Your task to perform on an android device: Search for a new desk on Ikea Image 0: 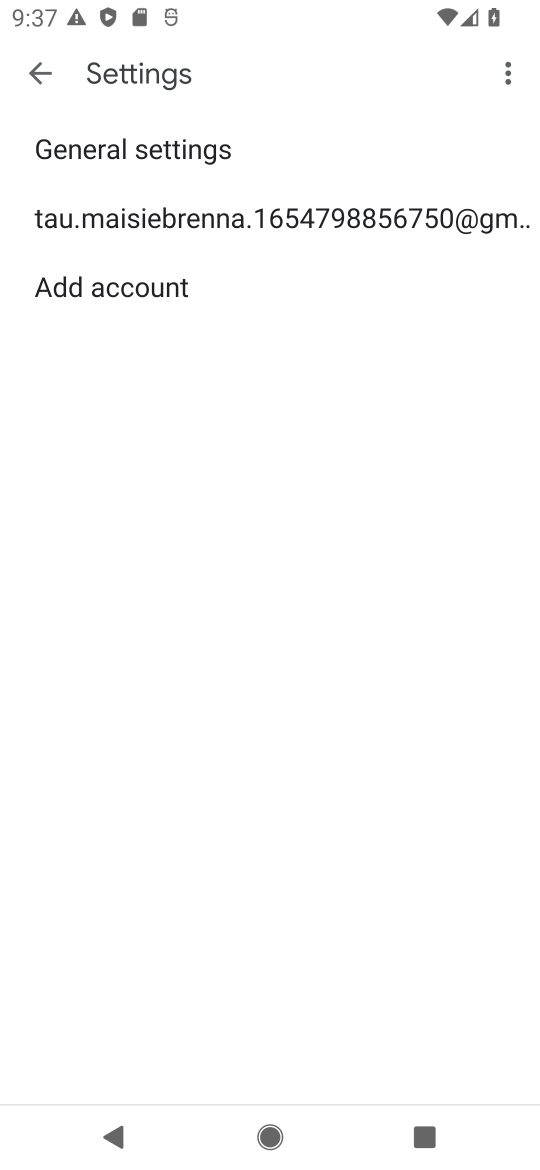
Step 0: press home button
Your task to perform on an android device: Search for a new desk on Ikea Image 1: 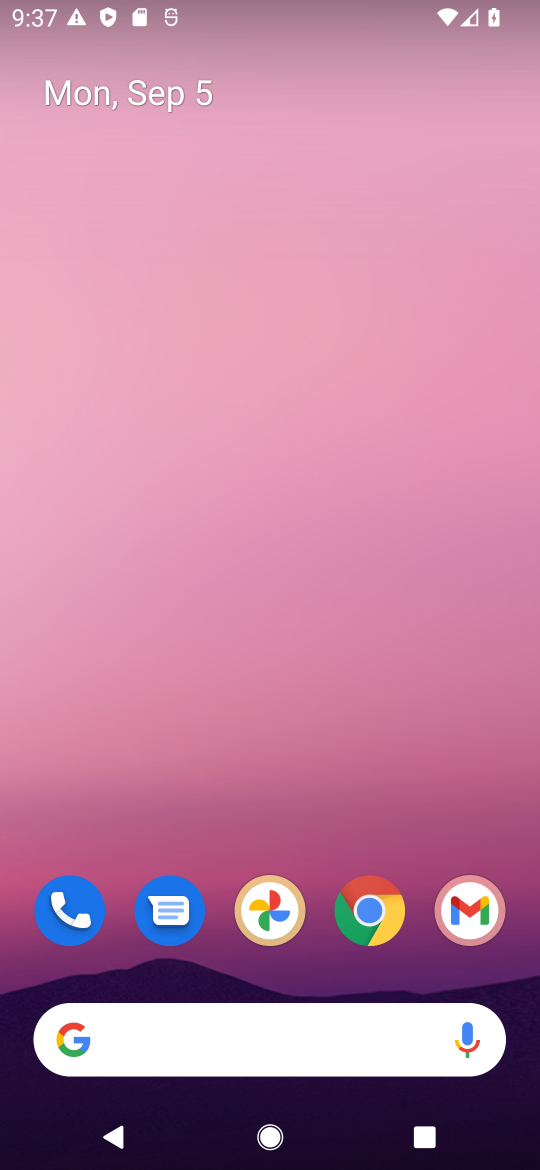
Step 1: click (363, 913)
Your task to perform on an android device: Search for a new desk on Ikea Image 2: 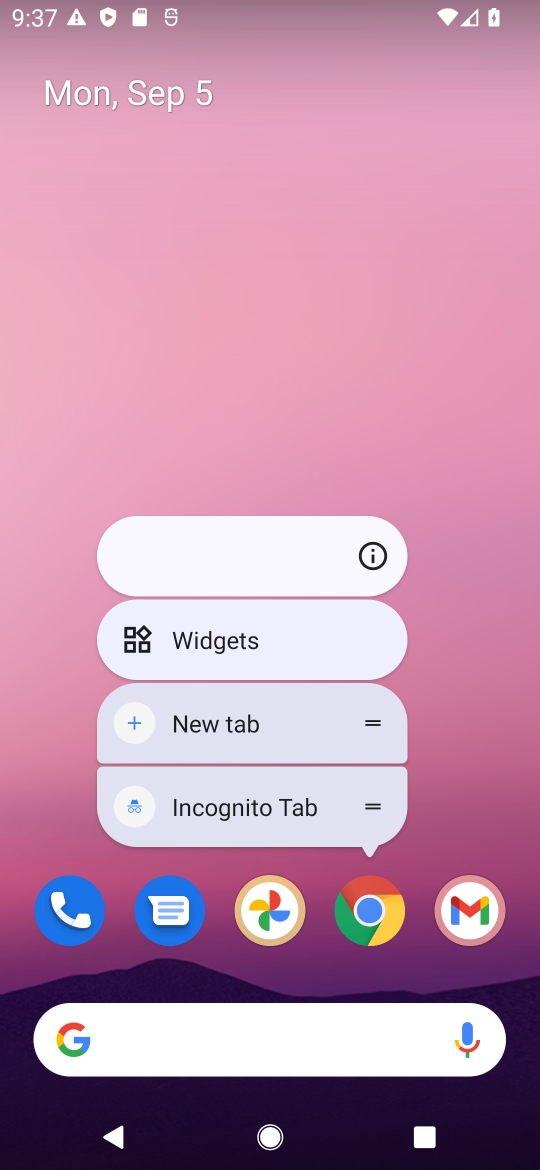
Step 2: click (386, 931)
Your task to perform on an android device: Search for a new desk on Ikea Image 3: 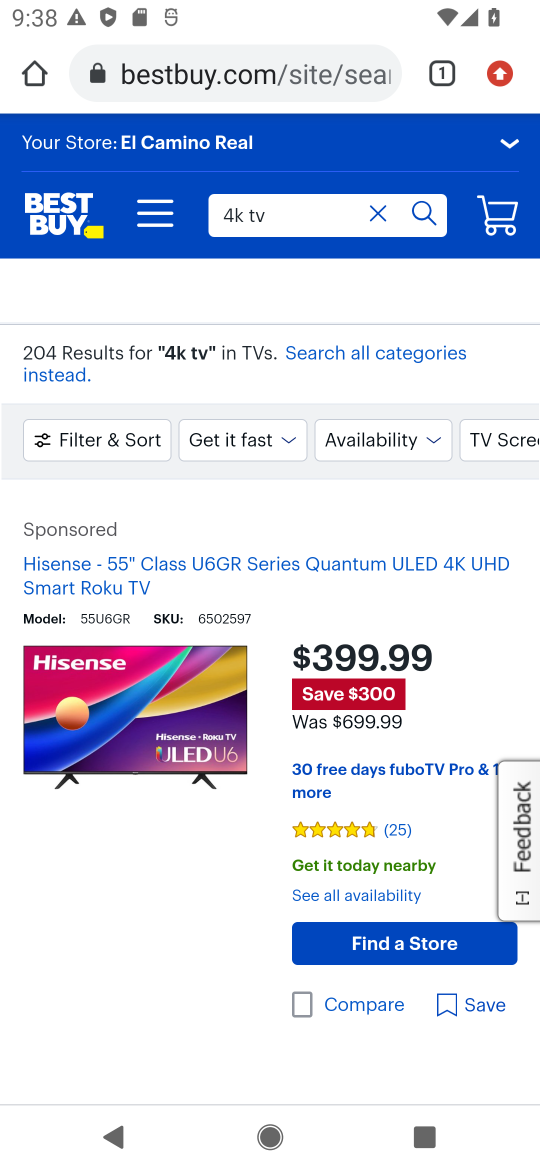
Step 3: click (337, 88)
Your task to perform on an android device: Search for a new desk on Ikea Image 4: 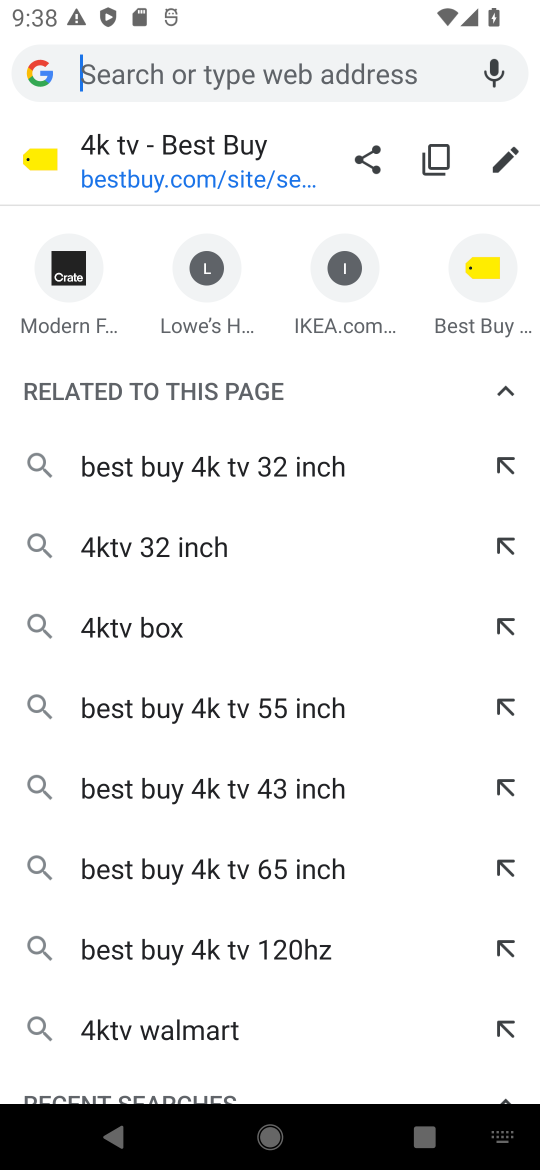
Step 4: type "ikea"
Your task to perform on an android device: Search for a new desk on Ikea Image 5: 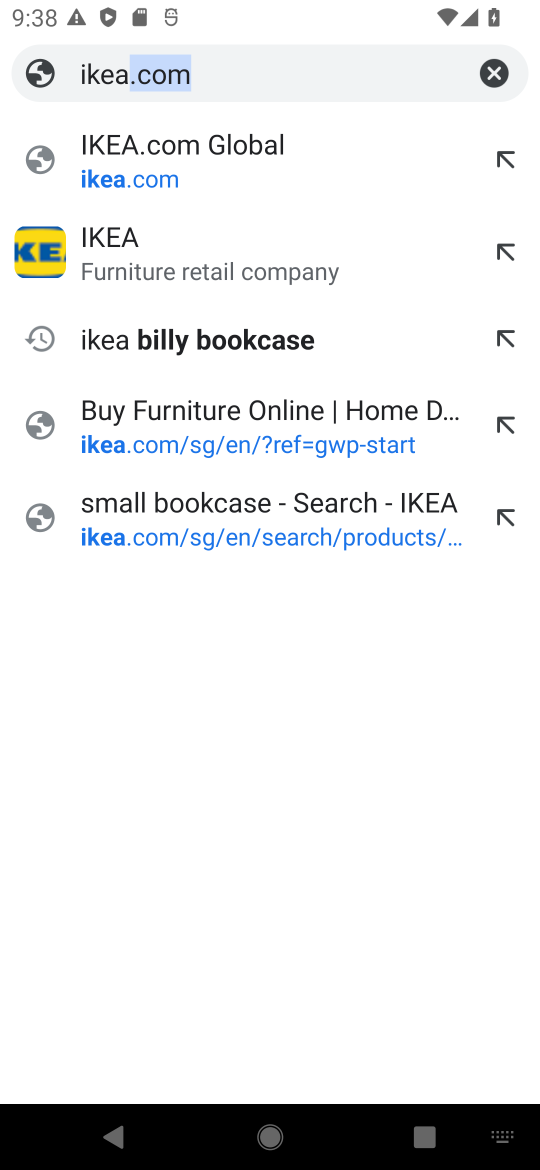
Step 5: click (248, 155)
Your task to perform on an android device: Search for a new desk on Ikea Image 6: 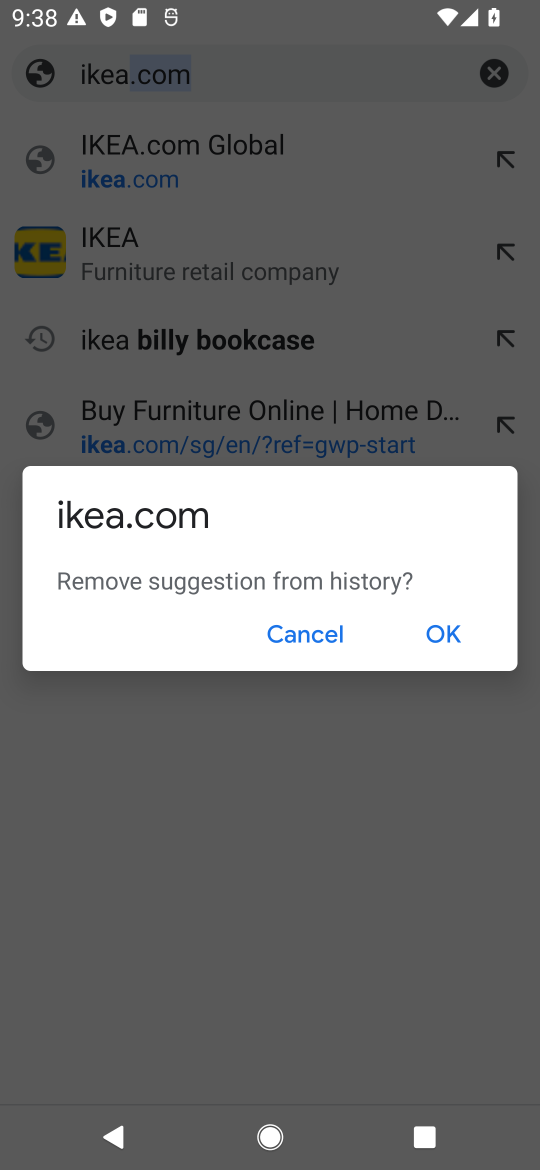
Step 6: click (321, 617)
Your task to perform on an android device: Search for a new desk on Ikea Image 7: 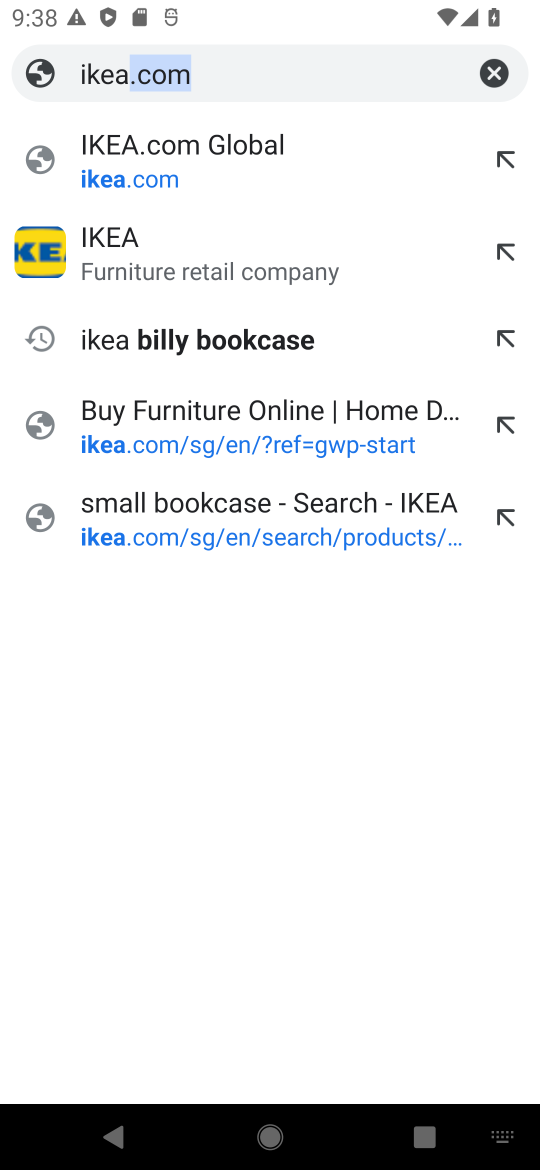
Step 7: click (218, 179)
Your task to perform on an android device: Search for a new desk on Ikea Image 8: 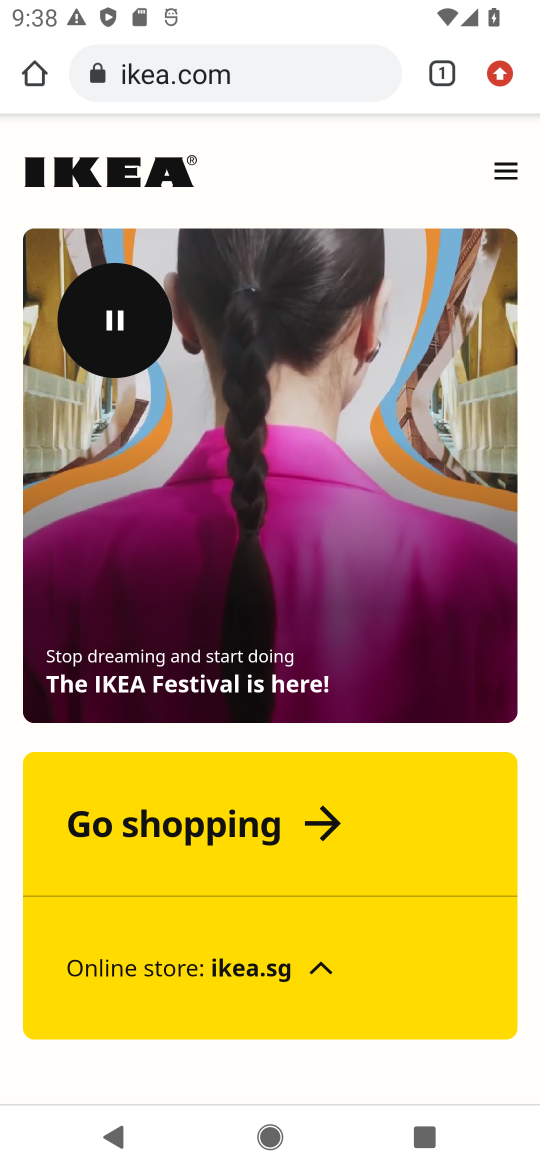
Step 8: click (310, 856)
Your task to perform on an android device: Search for a new desk on Ikea Image 9: 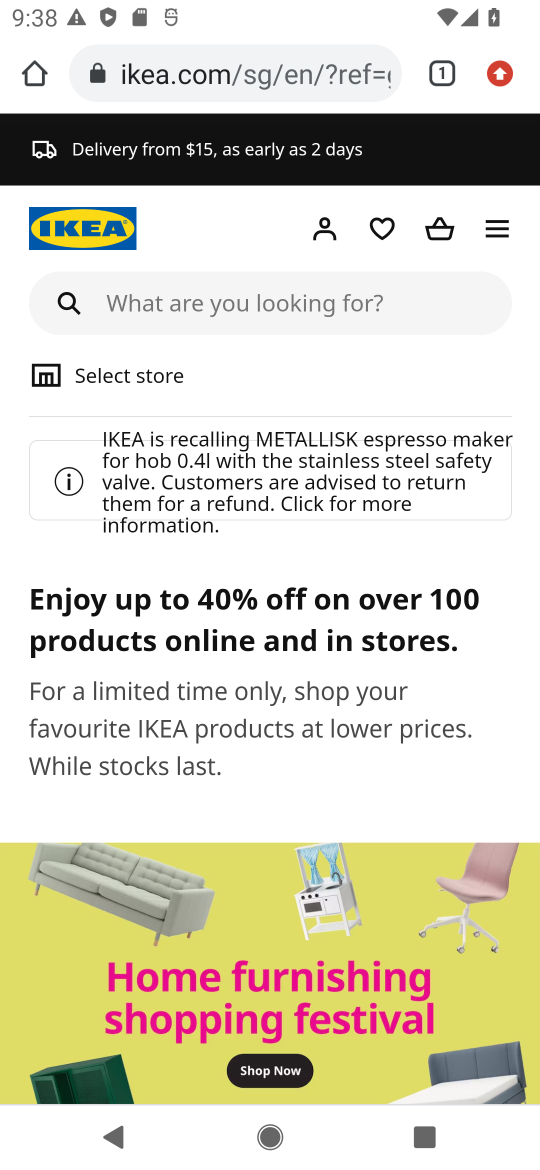
Step 9: click (278, 316)
Your task to perform on an android device: Search for a new desk on Ikea Image 10: 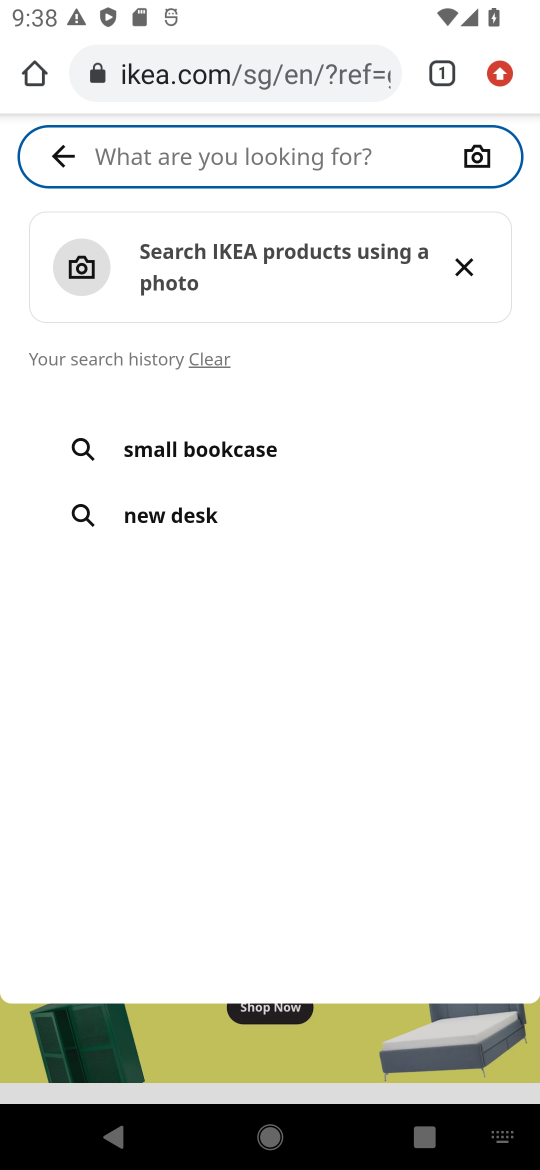
Step 10: type "new desk"
Your task to perform on an android device: Search for a new desk on Ikea Image 11: 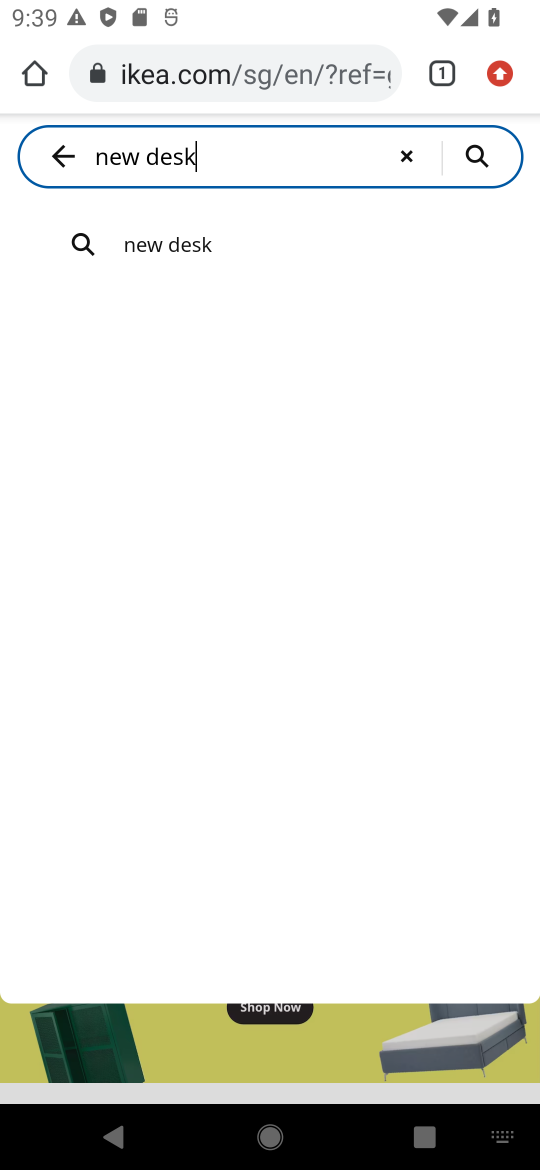
Step 11: press enter
Your task to perform on an android device: Search for a new desk on Ikea Image 12: 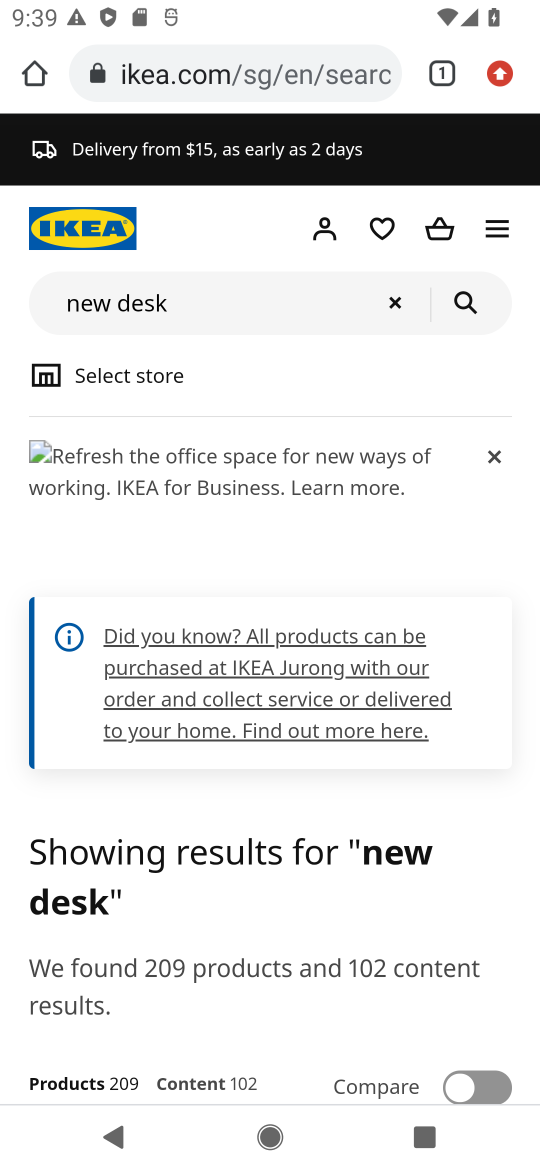
Step 12: task complete